Your task to perform on an android device: Open sound settings Image 0: 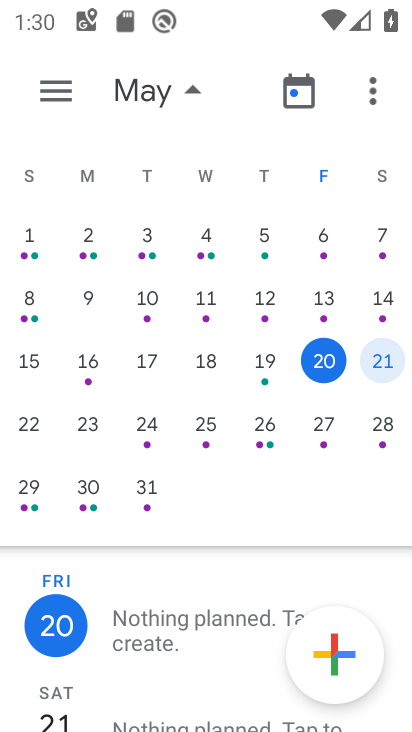
Step 0: press home button
Your task to perform on an android device: Open sound settings Image 1: 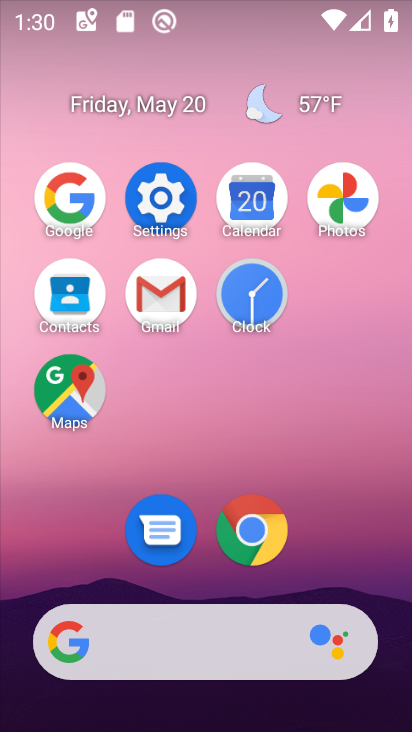
Step 1: click (165, 209)
Your task to perform on an android device: Open sound settings Image 2: 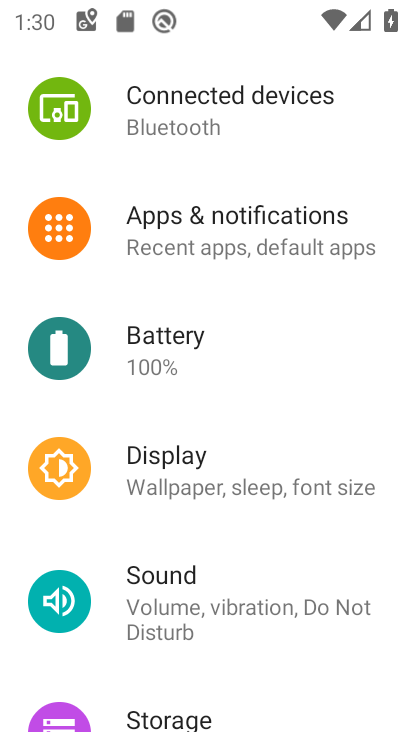
Step 2: click (180, 571)
Your task to perform on an android device: Open sound settings Image 3: 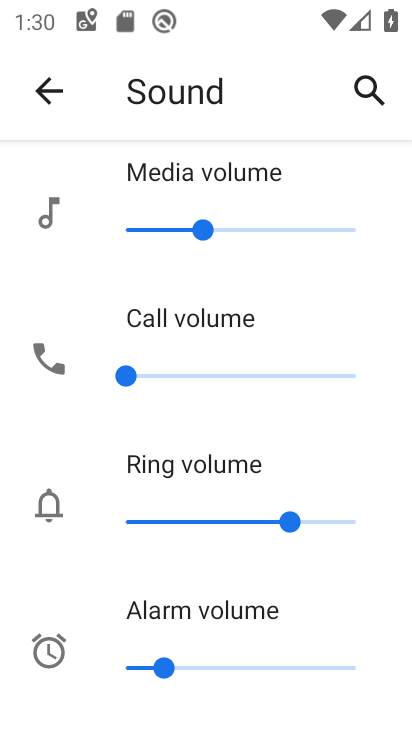
Step 3: task complete